Your task to perform on an android device: Open the stopwatch Image 0: 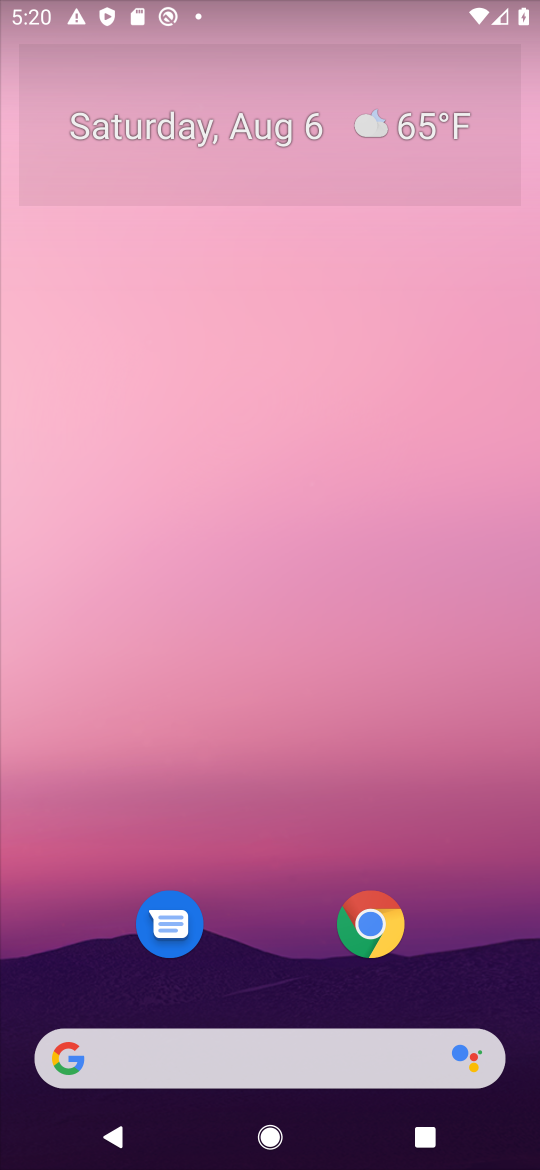
Step 0: drag from (331, 1107) to (434, 127)
Your task to perform on an android device: Open the stopwatch Image 1: 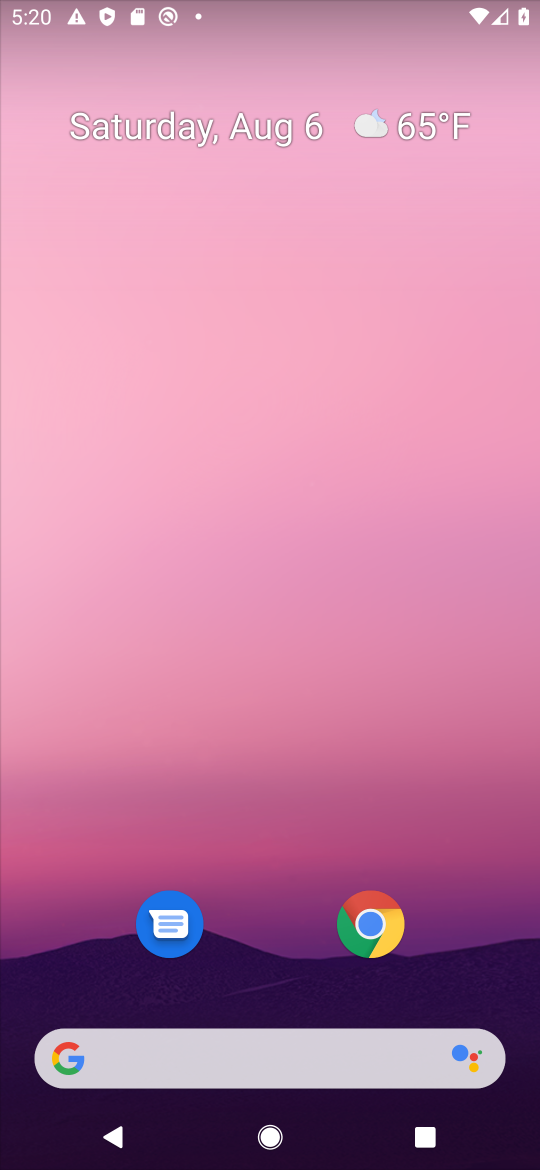
Step 1: drag from (367, 1142) to (347, 1)
Your task to perform on an android device: Open the stopwatch Image 2: 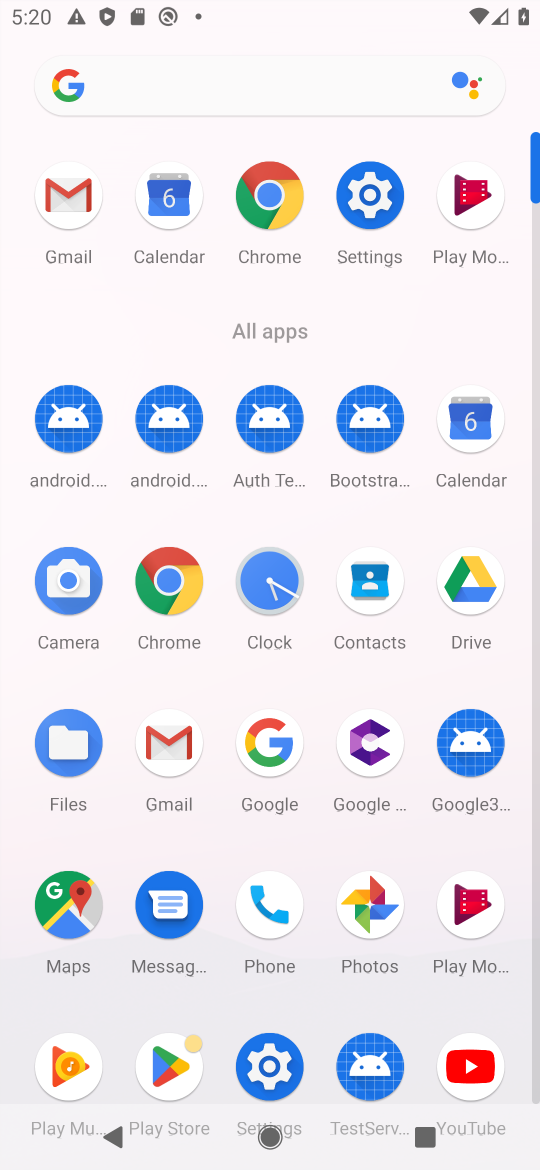
Step 2: click (356, 166)
Your task to perform on an android device: Open the stopwatch Image 3: 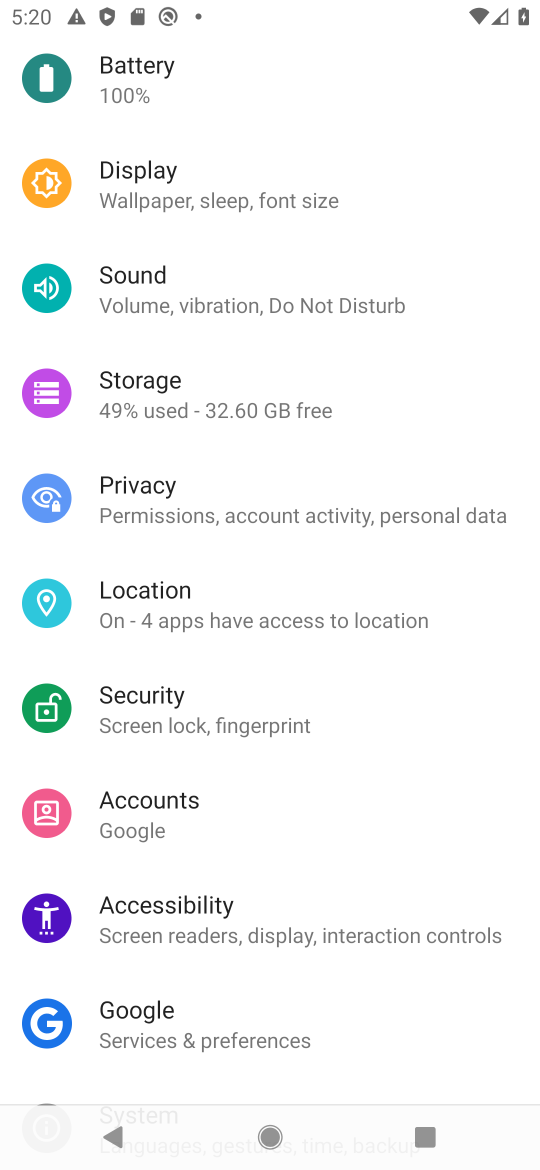
Step 3: press home button
Your task to perform on an android device: Open the stopwatch Image 4: 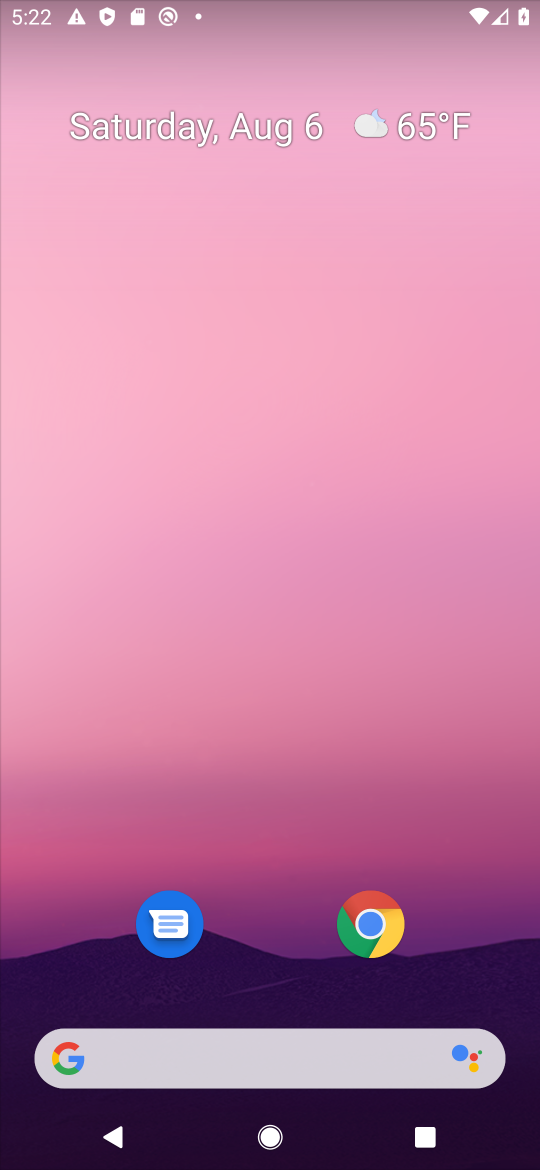
Step 4: drag from (306, 645) to (511, 127)
Your task to perform on an android device: Open the stopwatch Image 5: 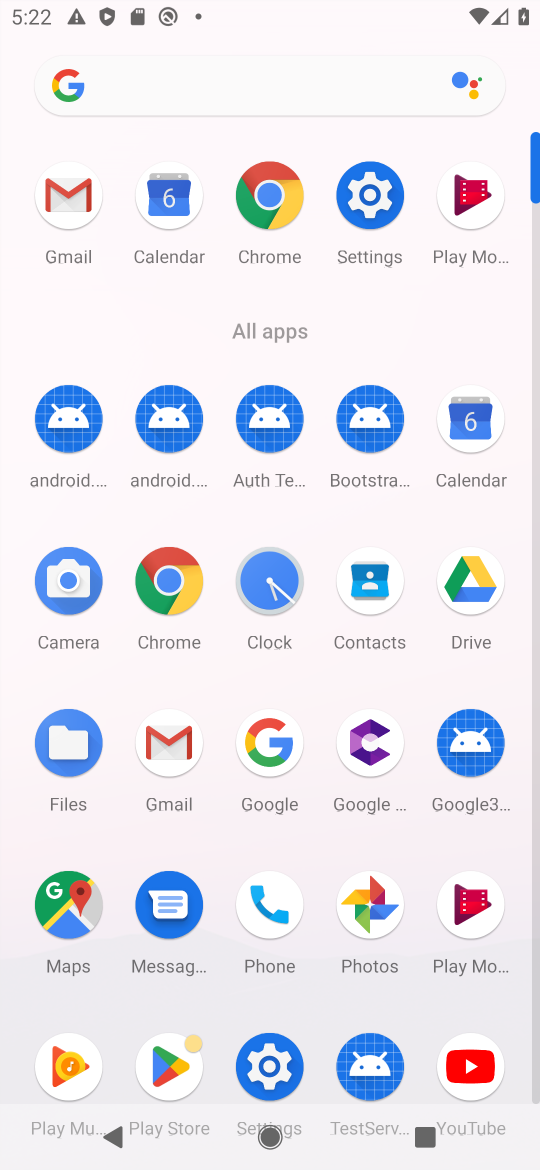
Step 5: click (269, 591)
Your task to perform on an android device: Open the stopwatch Image 6: 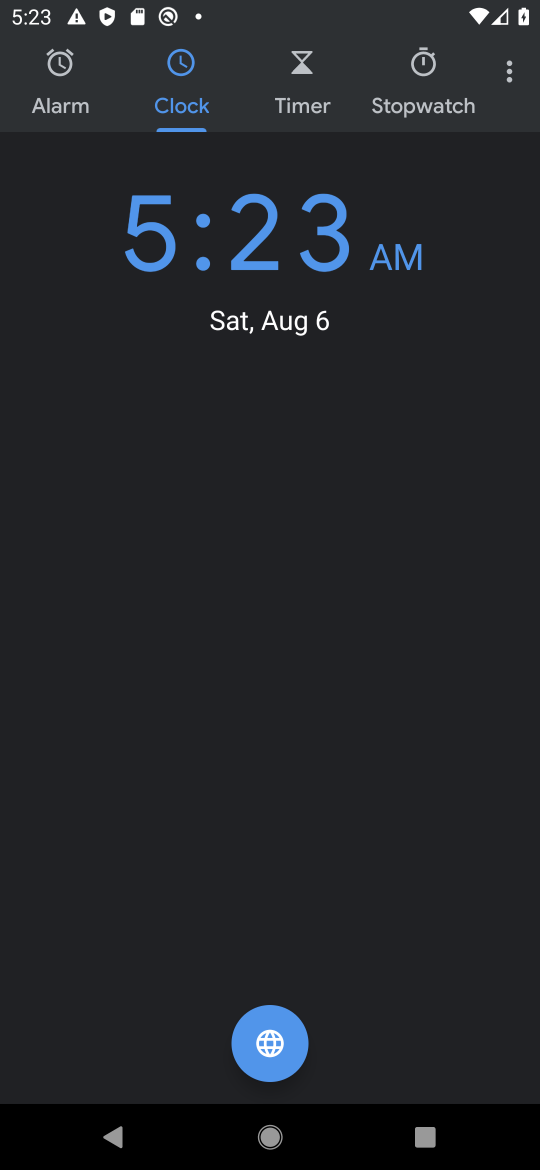
Step 6: click (417, 73)
Your task to perform on an android device: Open the stopwatch Image 7: 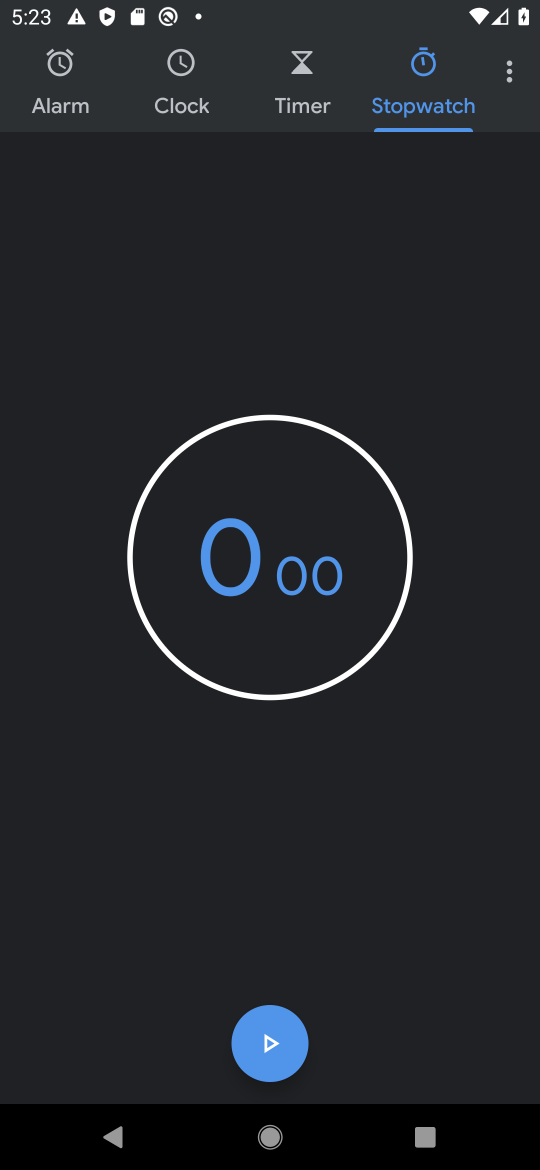
Step 7: task complete